Your task to perform on an android device: When is my next meeting? Image 0: 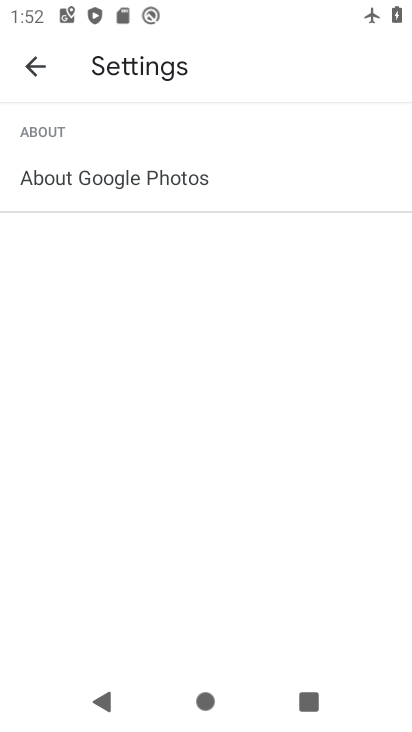
Step 0: press home button
Your task to perform on an android device: When is my next meeting? Image 1: 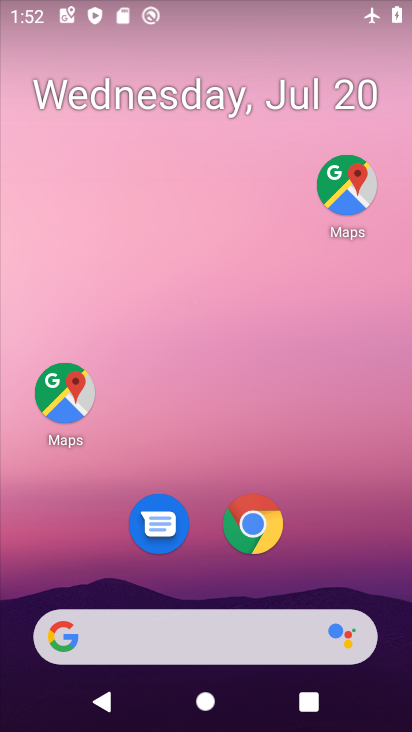
Step 1: drag from (210, 490) to (254, 75)
Your task to perform on an android device: When is my next meeting? Image 2: 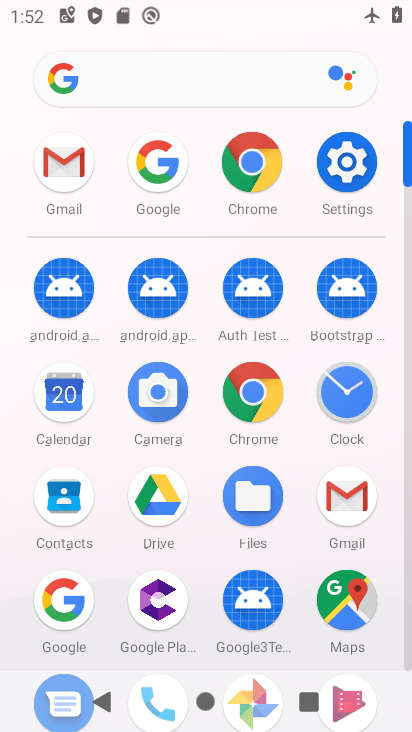
Step 2: click (80, 406)
Your task to perform on an android device: When is my next meeting? Image 3: 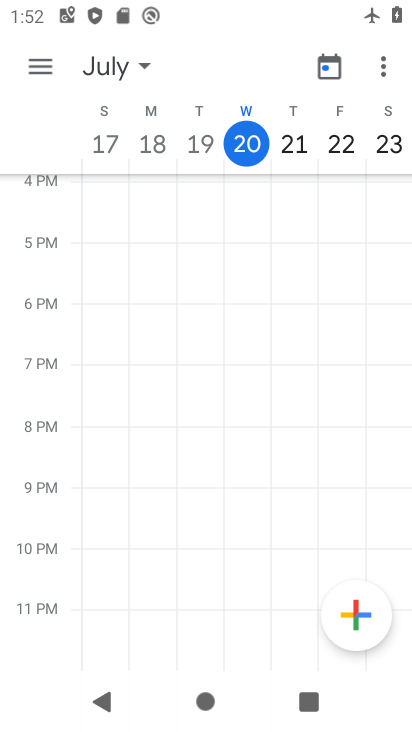
Step 3: task complete